Your task to perform on an android device: Go to location settings Image 0: 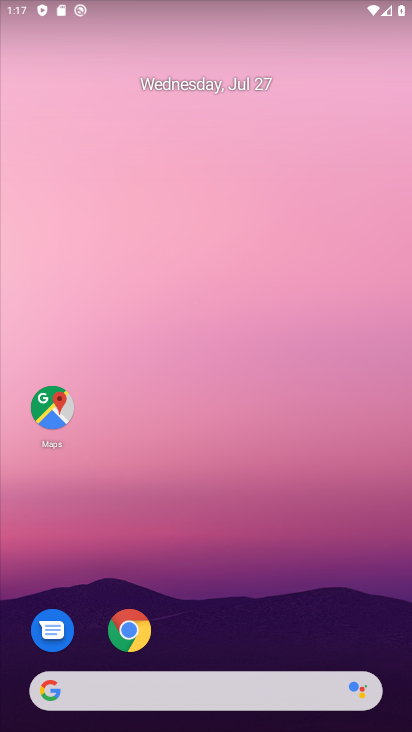
Step 0: drag from (197, 648) to (216, 278)
Your task to perform on an android device: Go to location settings Image 1: 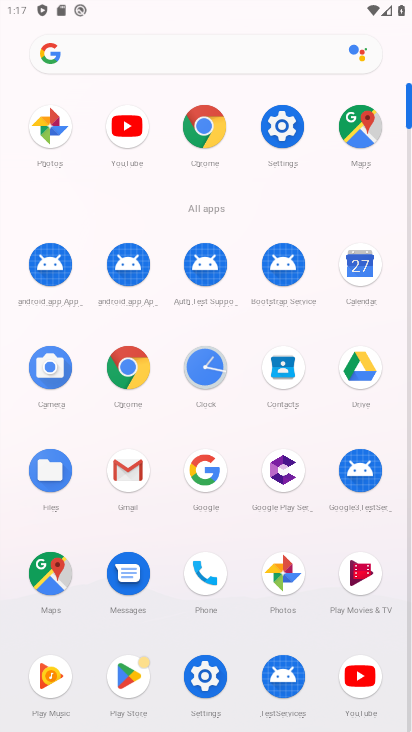
Step 1: click (274, 139)
Your task to perform on an android device: Go to location settings Image 2: 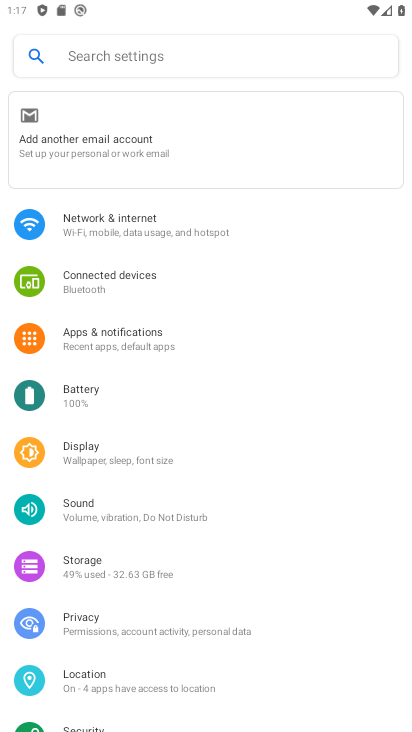
Step 2: click (98, 683)
Your task to perform on an android device: Go to location settings Image 3: 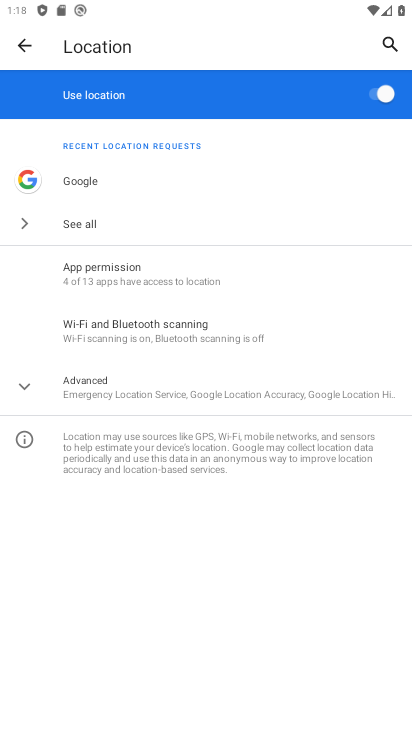
Step 3: task complete